Your task to perform on an android device: turn on the 24-hour format for clock Image 0: 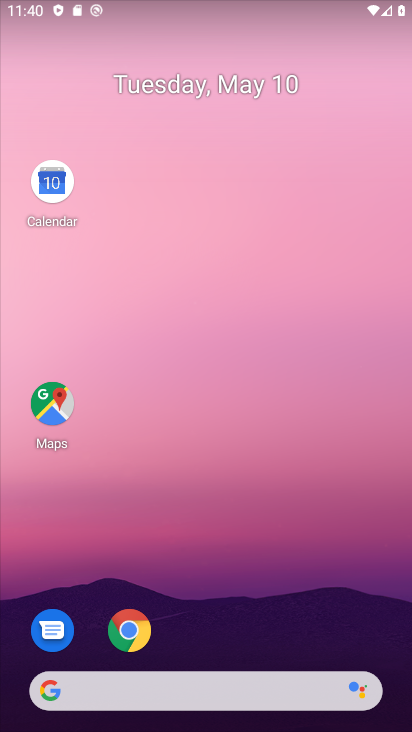
Step 0: drag from (269, 613) to (321, 140)
Your task to perform on an android device: turn on the 24-hour format for clock Image 1: 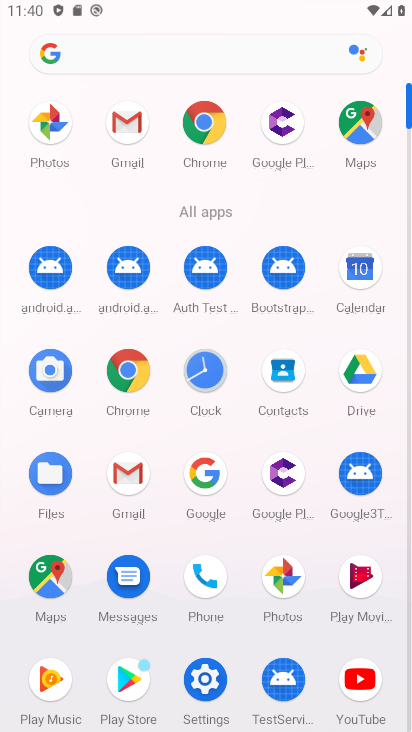
Step 1: drag from (207, 373) to (123, 213)
Your task to perform on an android device: turn on the 24-hour format for clock Image 2: 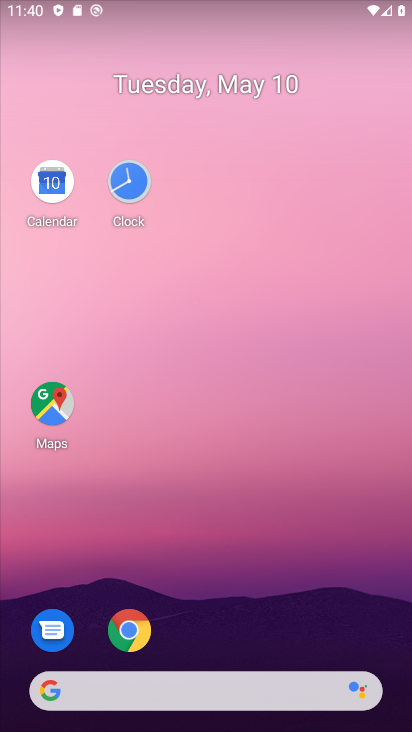
Step 2: click (139, 186)
Your task to perform on an android device: turn on the 24-hour format for clock Image 3: 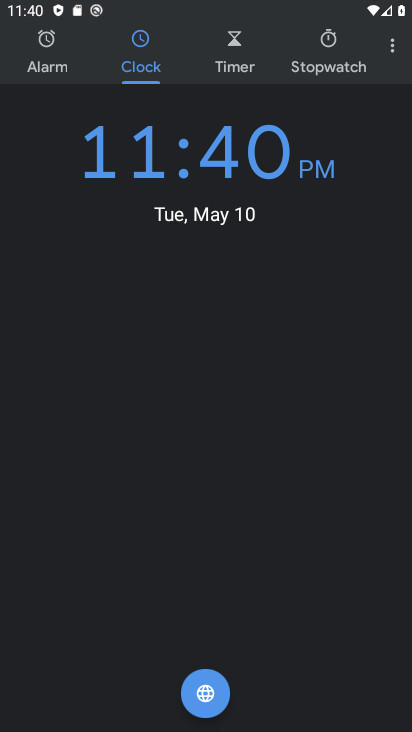
Step 3: click (390, 38)
Your task to perform on an android device: turn on the 24-hour format for clock Image 4: 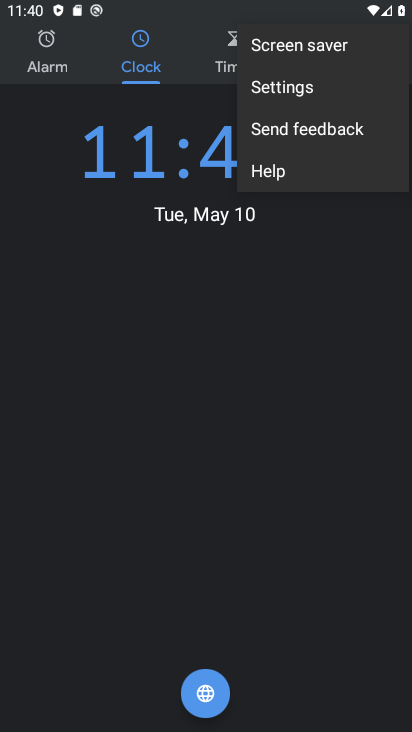
Step 4: click (300, 86)
Your task to perform on an android device: turn on the 24-hour format for clock Image 5: 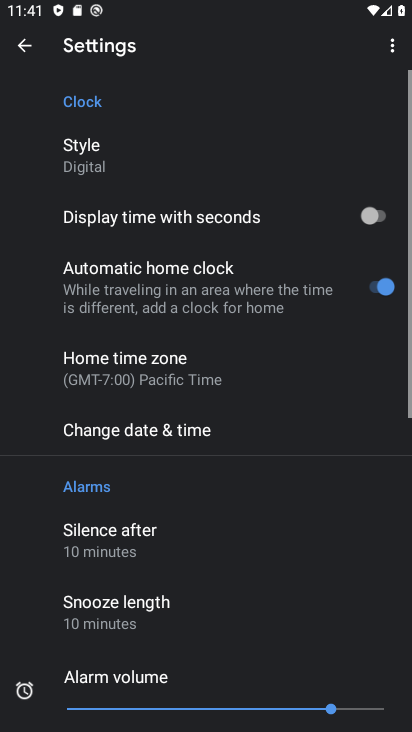
Step 5: drag from (216, 614) to (256, 167)
Your task to perform on an android device: turn on the 24-hour format for clock Image 6: 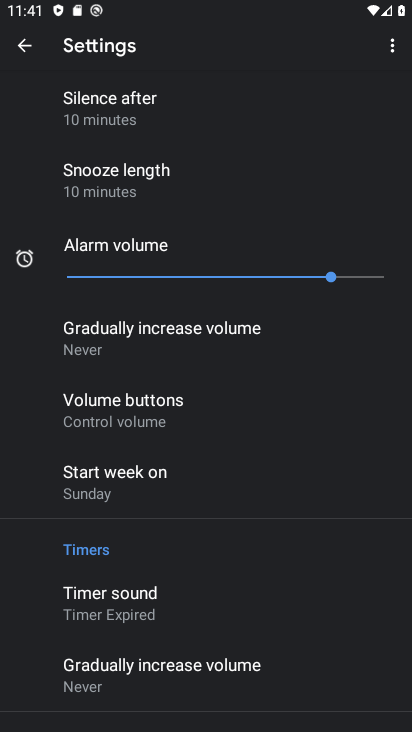
Step 6: drag from (256, 181) to (261, 628)
Your task to perform on an android device: turn on the 24-hour format for clock Image 7: 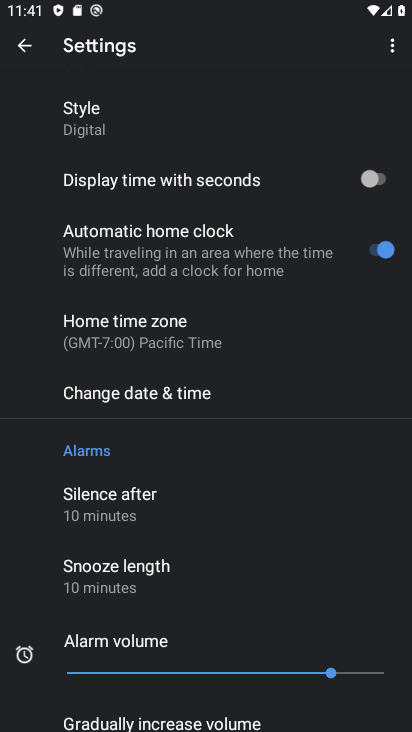
Step 7: click (164, 391)
Your task to perform on an android device: turn on the 24-hour format for clock Image 8: 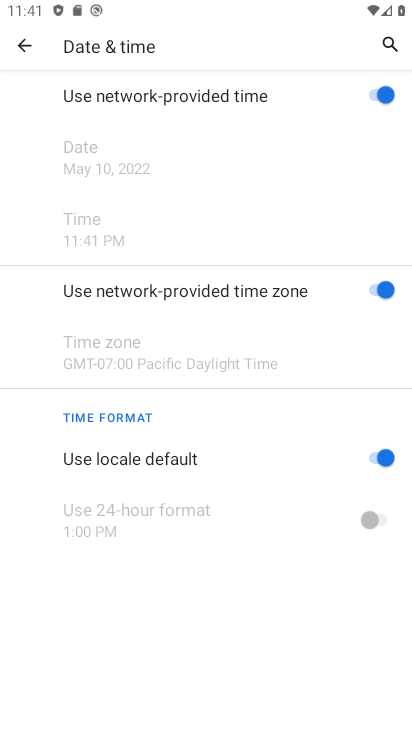
Step 8: click (383, 452)
Your task to perform on an android device: turn on the 24-hour format for clock Image 9: 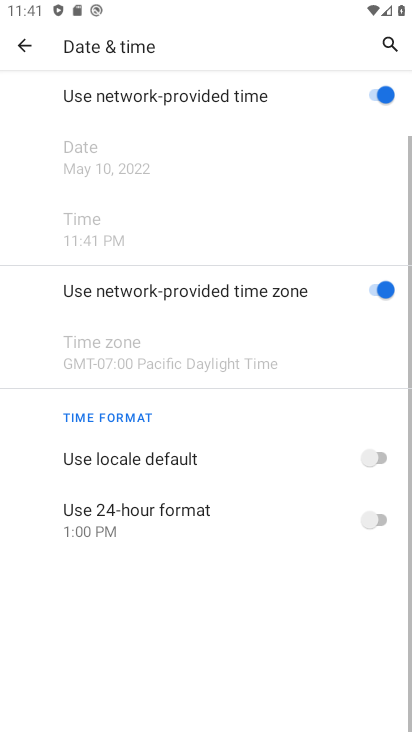
Step 9: click (376, 513)
Your task to perform on an android device: turn on the 24-hour format for clock Image 10: 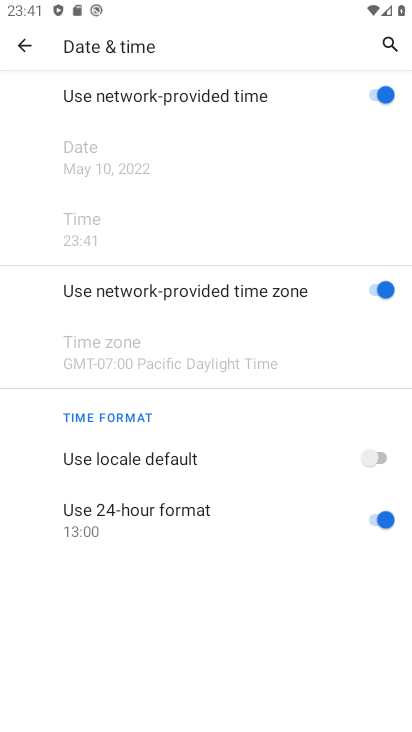
Step 10: task complete